Your task to perform on an android device: turn on wifi Image 0: 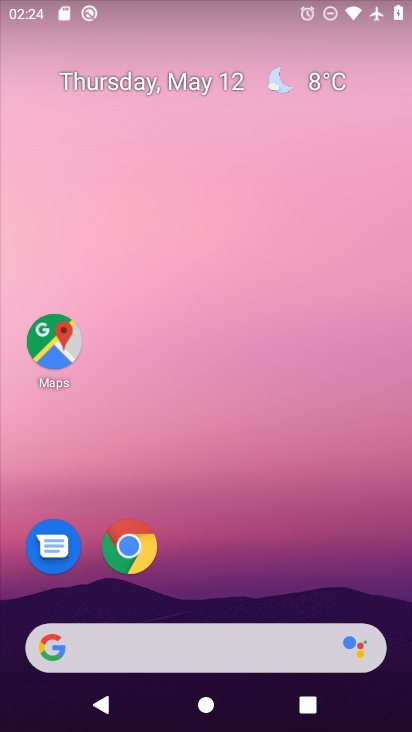
Step 0: press home button
Your task to perform on an android device: turn on wifi Image 1: 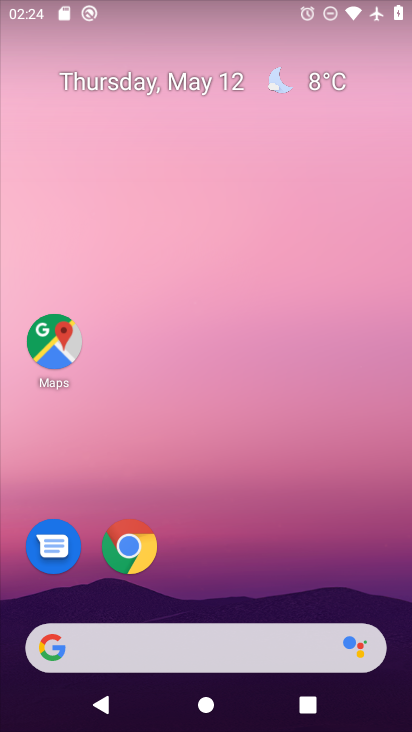
Step 1: drag from (166, 622) to (286, 123)
Your task to perform on an android device: turn on wifi Image 2: 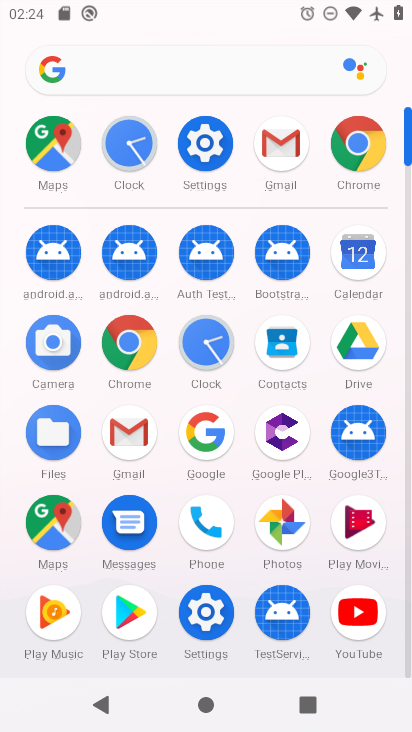
Step 2: click (197, 159)
Your task to perform on an android device: turn on wifi Image 3: 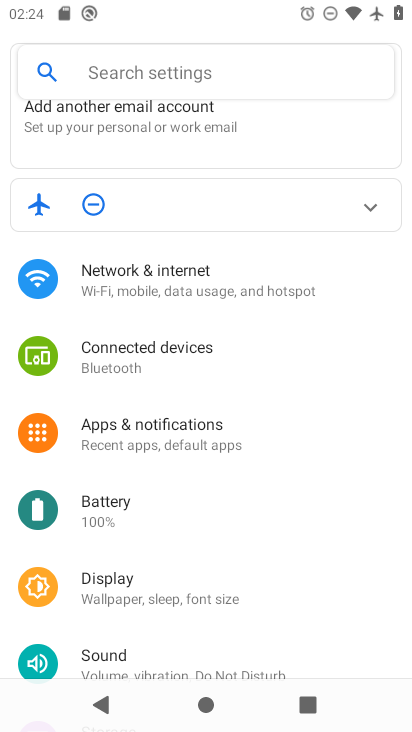
Step 3: click (170, 274)
Your task to perform on an android device: turn on wifi Image 4: 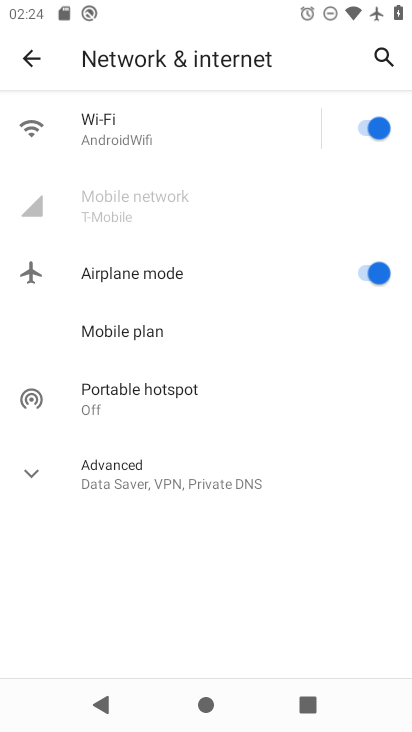
Step 4: task complete